Your task to perform on an android device: What's the weather today? Image 0: 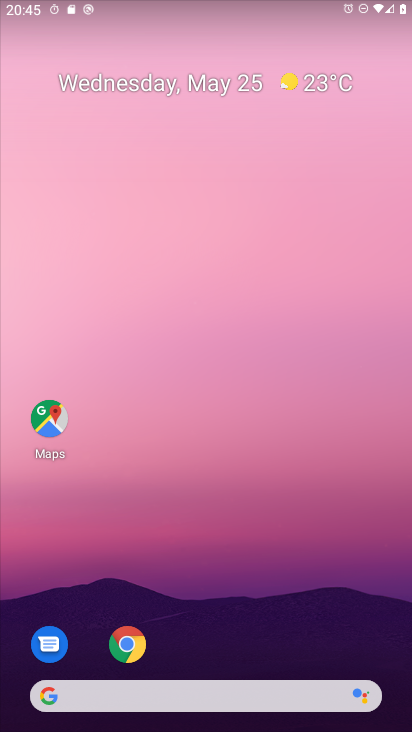
Step 0: press home button
Your task to perform on an android device: What's the weather today? Image 1: 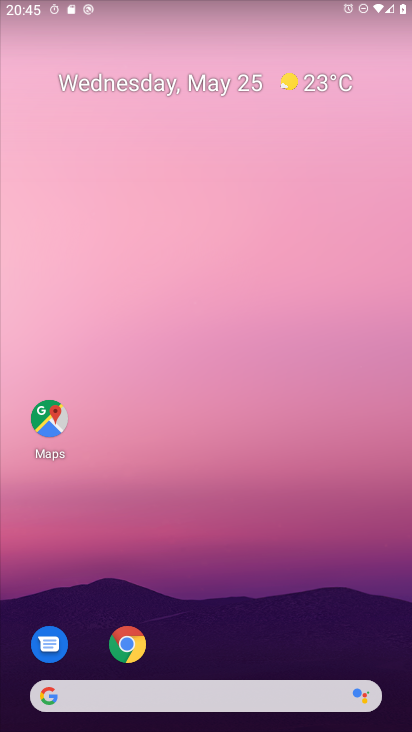
Step 1: drag from (255, 703) to (334, 158)
Your task to perform on an android device: What's the weather today? Image 2: 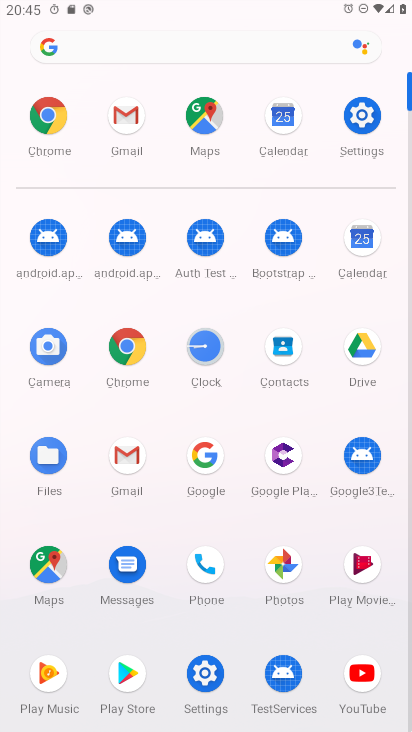
Step 2: click (163, 44)
Your task to perform on an android device: What's the weather today? Image 3: 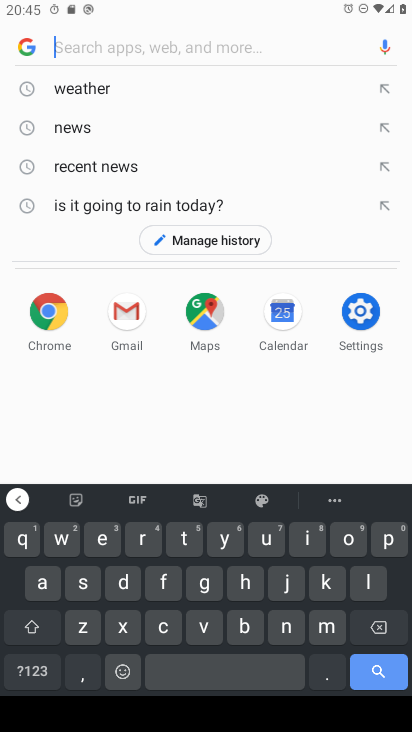
Step 3: click (67, 86)
Your task to perform on an android device: What's the weather today? Image 4: 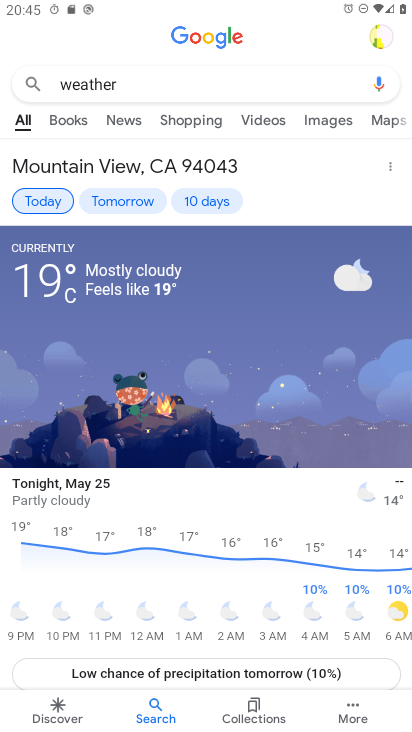
Step 4: task complete